Your task to perform on an android device: turn on bluetooth scan Image 0: 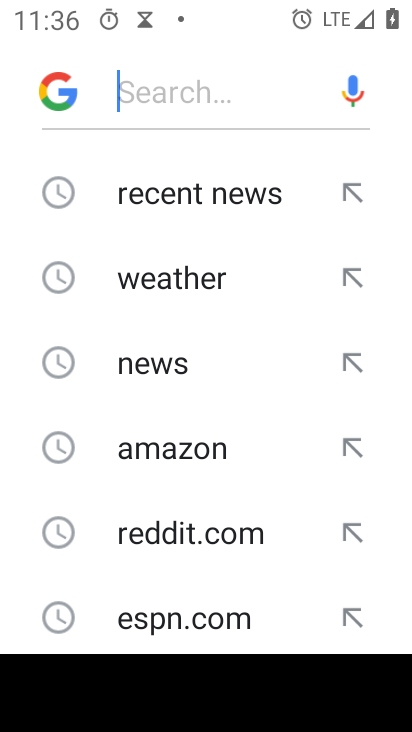
Step 0: press home button
Your task to perform on an android device: turn on bluetooth scan Image 1: 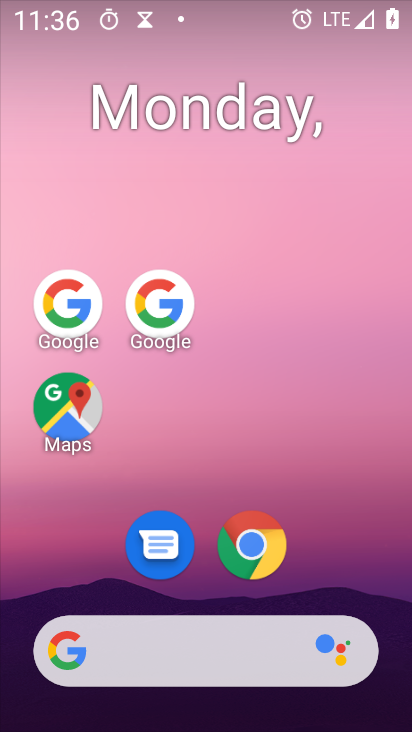
Step 1: drag from (183, 670) to (237, 182)
Your task to perform on an android device: turn on bluetooth scan Image 2: 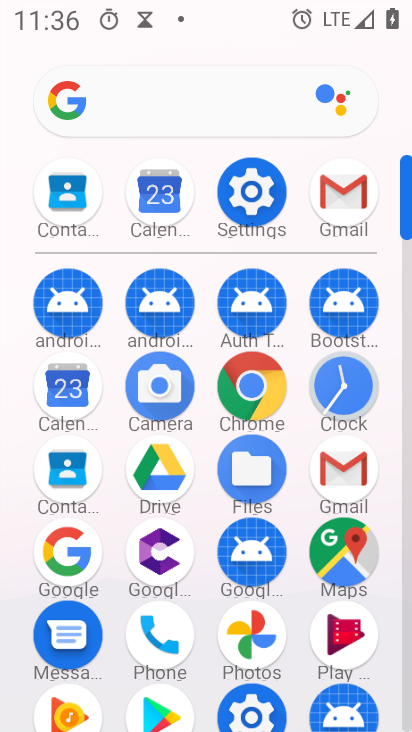
Step 2: click (237, 210)
Your task to perform on an android device: turn on bluetooth scan Image 3: 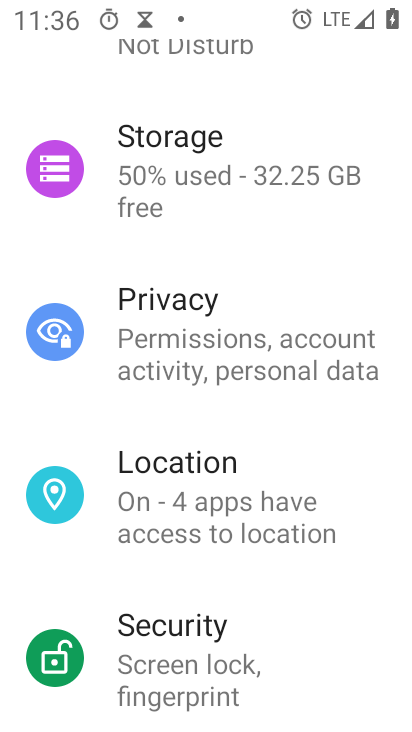
Step 3: click (215, 487)
Your task to perform on an android device: turn on bluetooth scan Image 4: 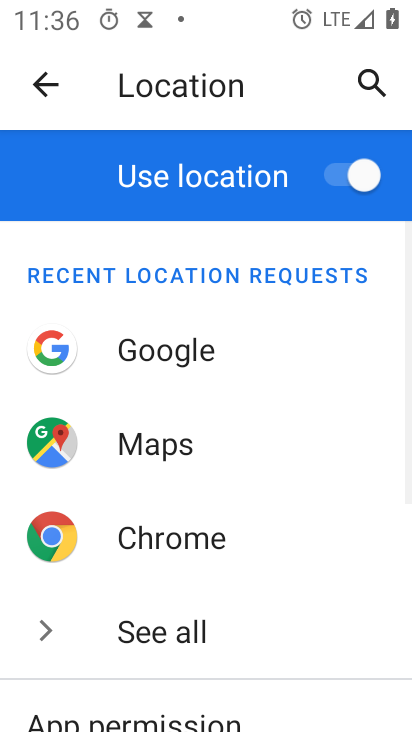
Step 4: drag from (246, 631) to (285, 251)
Your task to perform on an android device: turn on bluetooth scan Image 5: 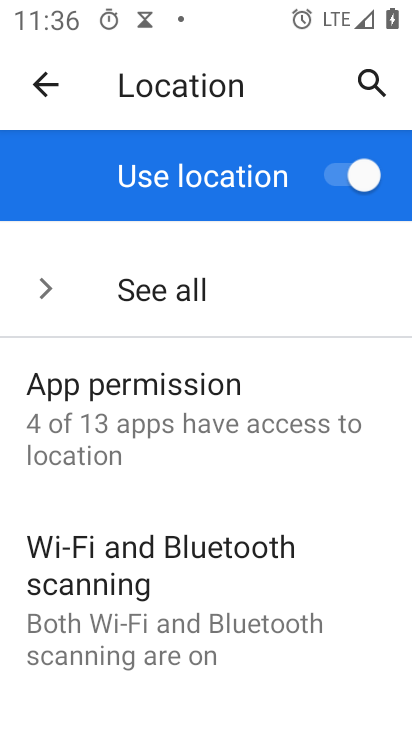
Step 5: drag from (236, 670) to (276, 365)
Your task to perform on an android device: turn on bluetooth scan Image 6: 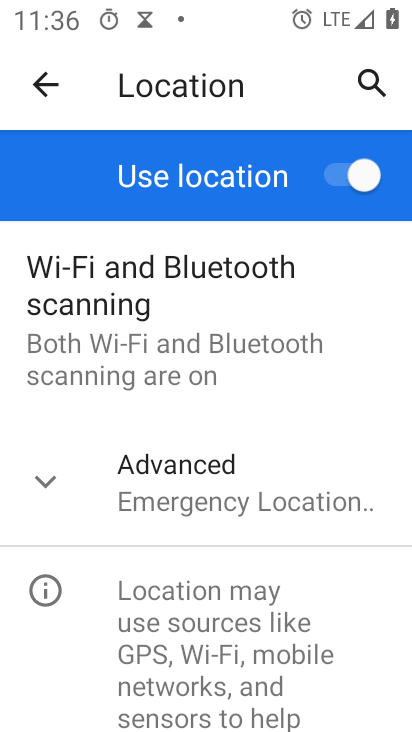
Step 6: click (211, 318)
Your task to perform on an android device: turn on bluetooth scan Image 7: 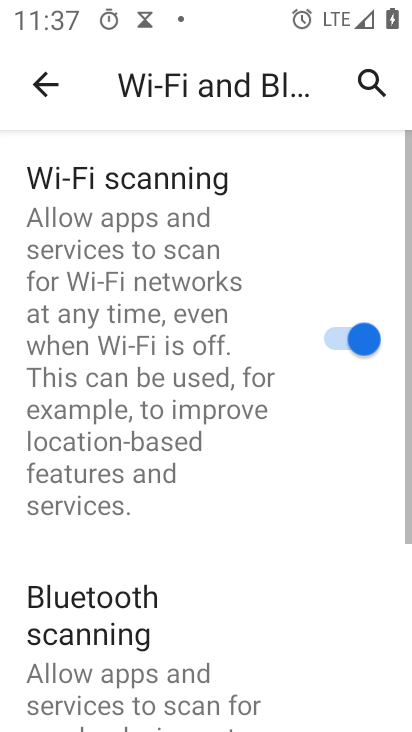
Step 7: task complete